Your task to perform on an android device: Go to battery settings Image 0: 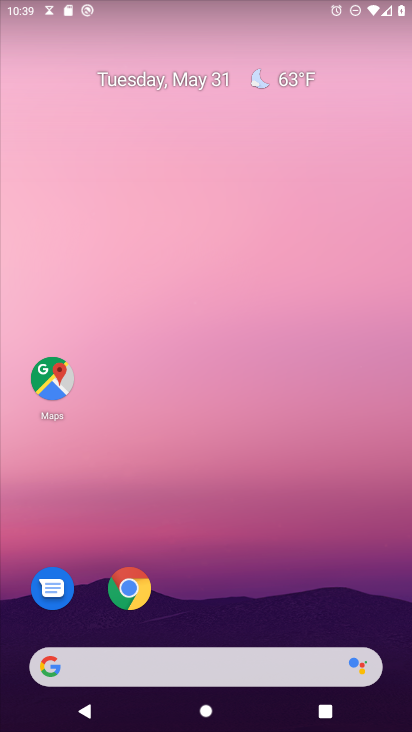
Step 0: drag from (236, 602) to (201, 155)
Your task to perform on an android device: Go to battery settings Image 1: 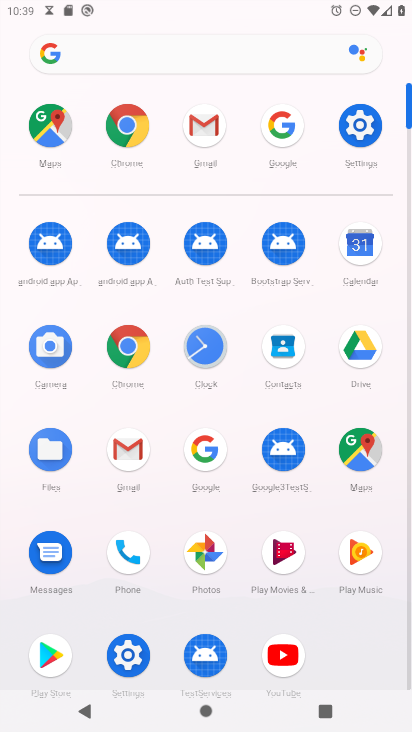
Step 1: click (362, 124)
Your task to perform on an android device: Go to battery settings Image 2: 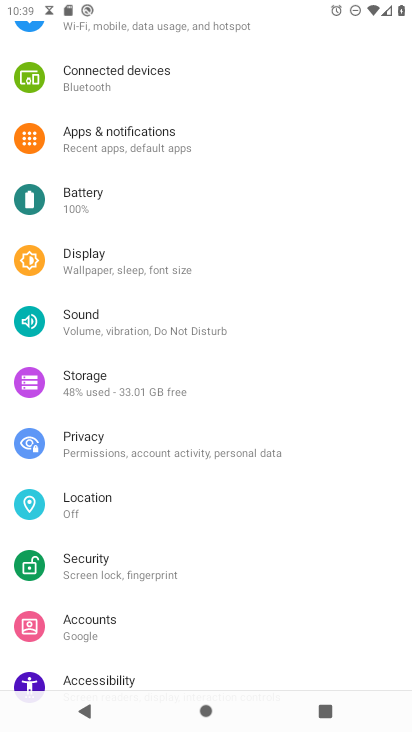
Step 2: click (88, 198)
Your task to perform on an android device: Go to battery settings Image 3: 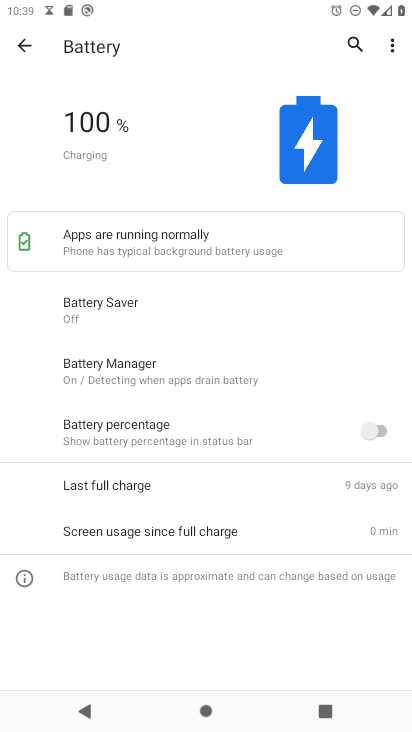
Step 3: task complete